Your task to perform on an android device: Search for the new Nintendo switch on Best Buy Image 0: 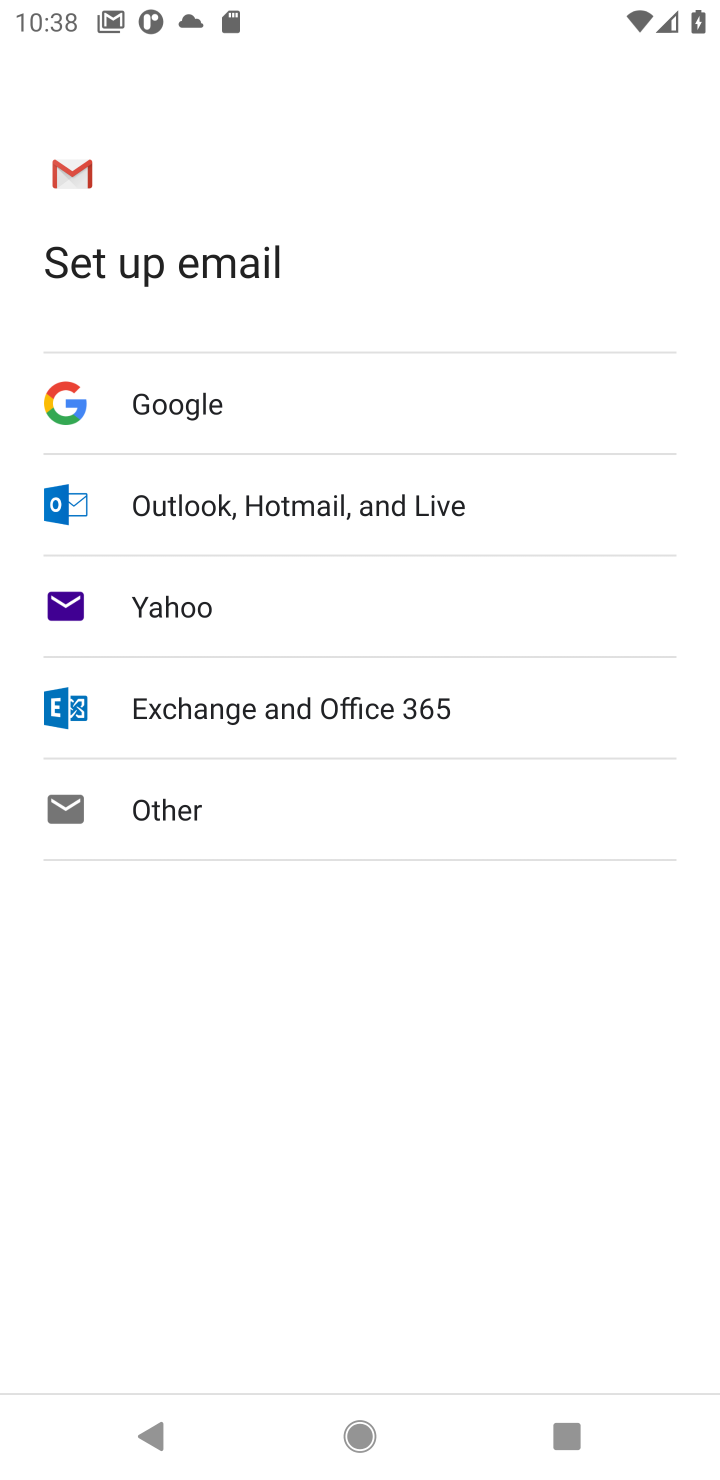
Step 0: press home button
Your task to perform on an android device: Search for the new Nintendo switch on Best Buy Image 1: 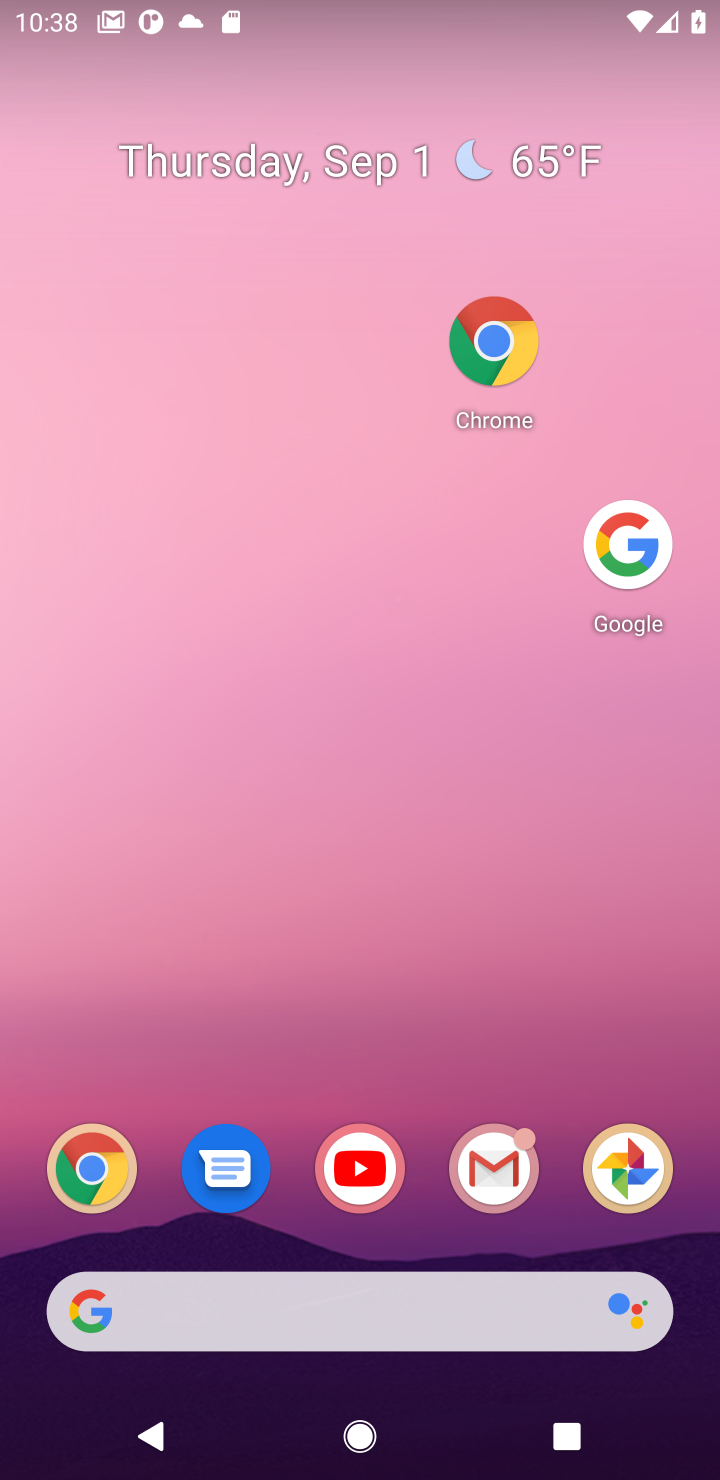
Step 1: click (628, 535)
Your task to perform on an android device: Search for the new Nintendo switch on Best Buy Image 2: 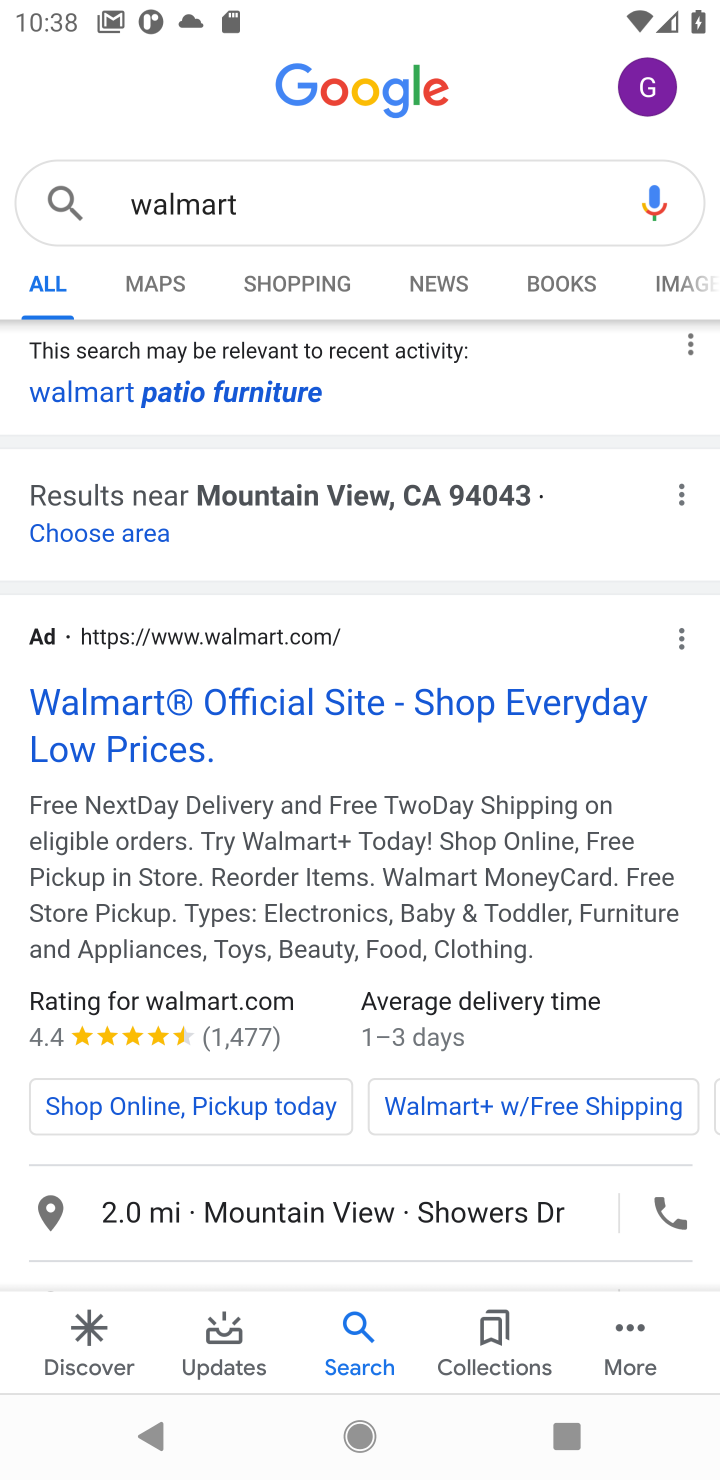
Step 2: click (434, 194)
Your task to perform on an android device: Search for the new Nintendo switch on Best Buy Image 3: 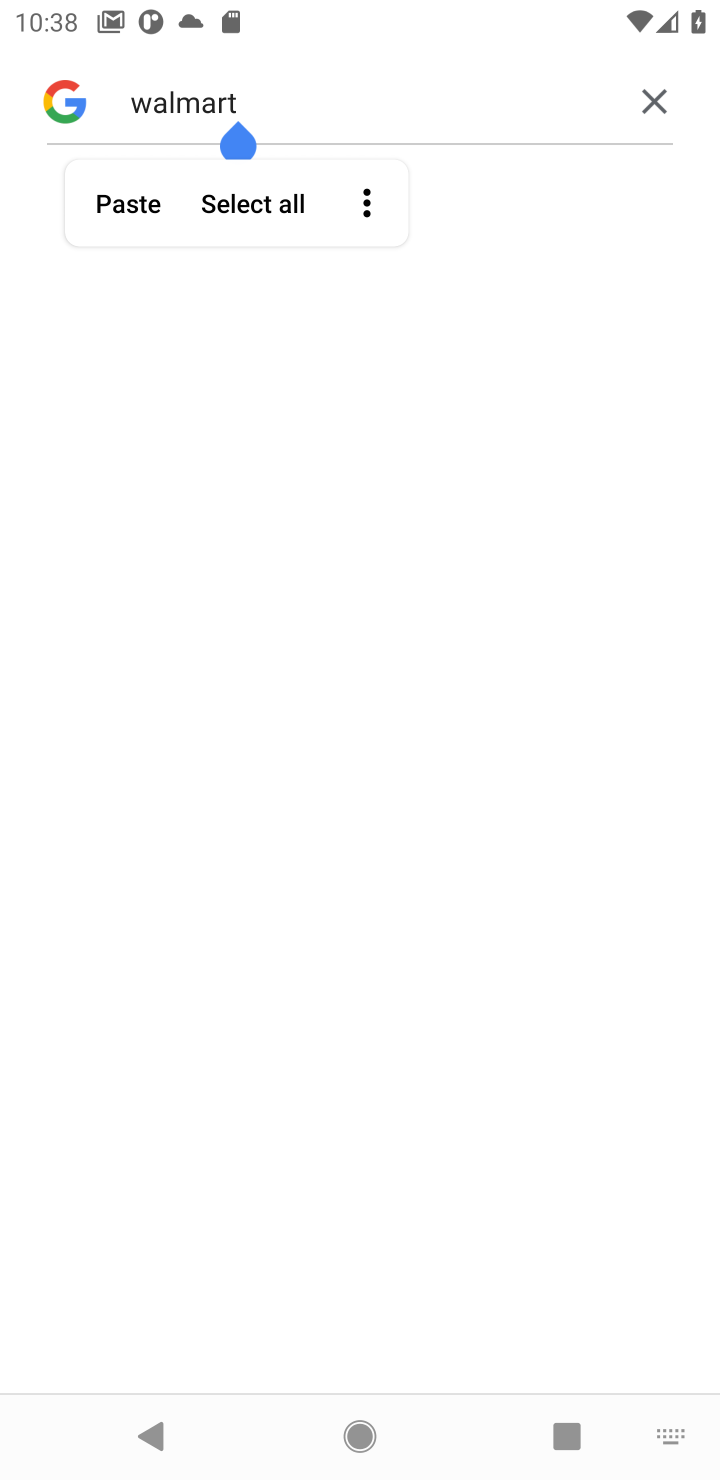
Step 3: click (645, 108)
Your task to perform on an android device: Search for the new Nintendo switch on Best Buy Image 4: 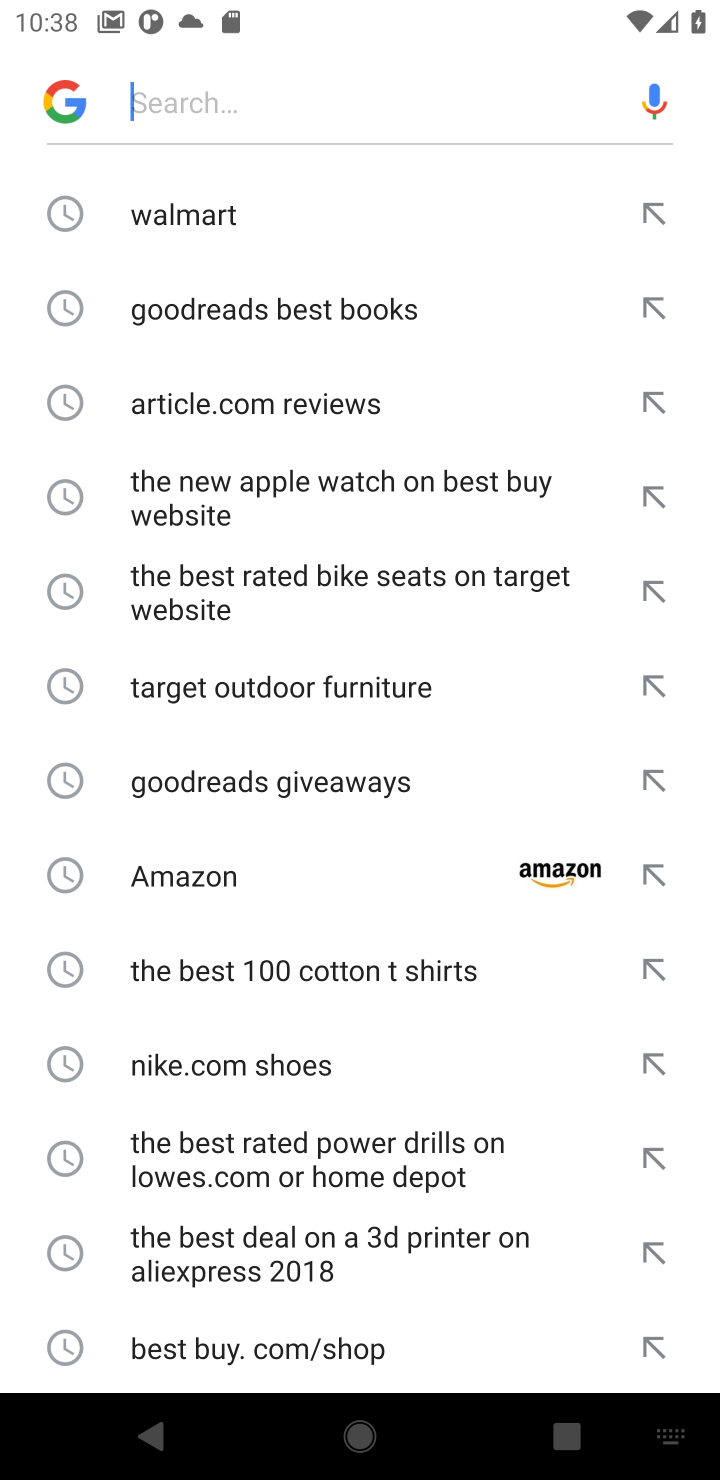
Step 4: click (314, 88)
Your task to perform on an android device: Search for the new Nintendo switch on Best Buy Image 5: 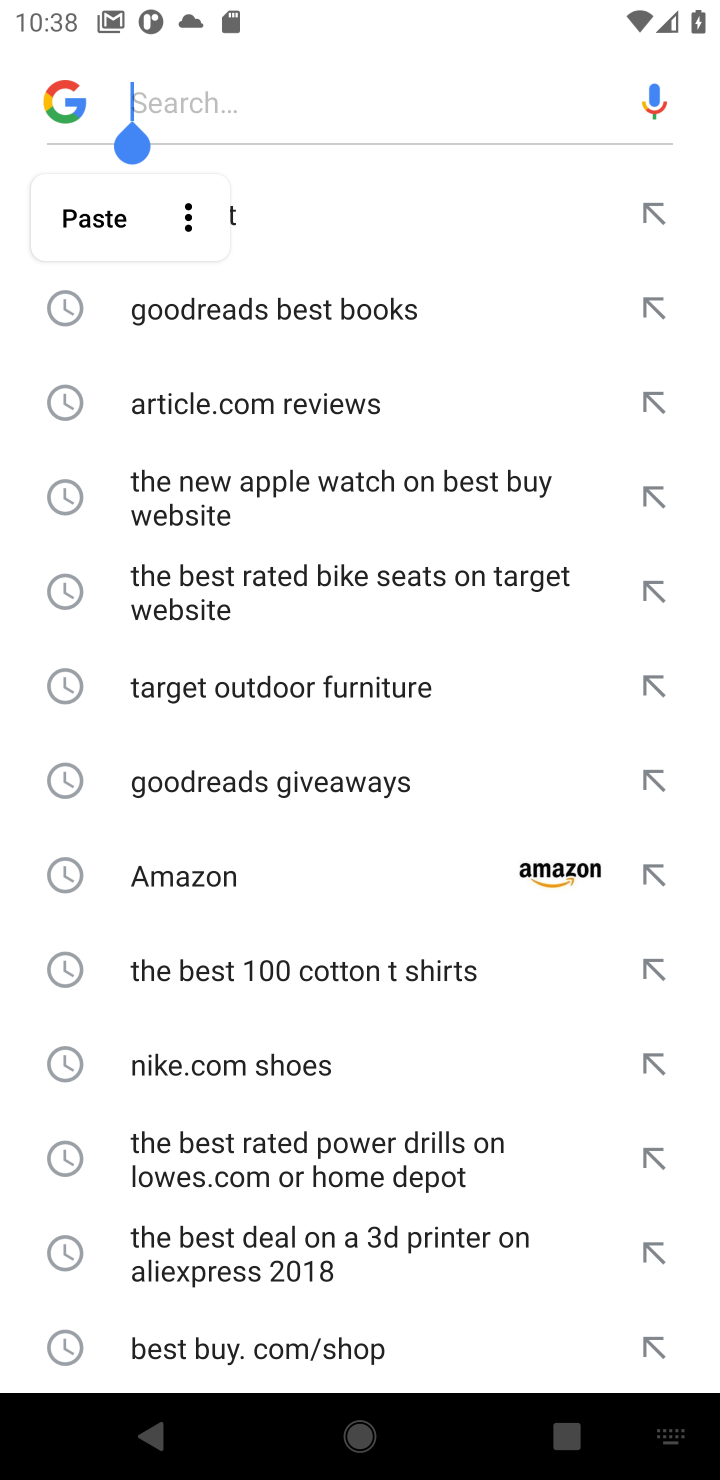
Step 5: type " Best Buy "
Your task to perform on an android device: Search for the new Nintendo switch on Best Buy Image 6: 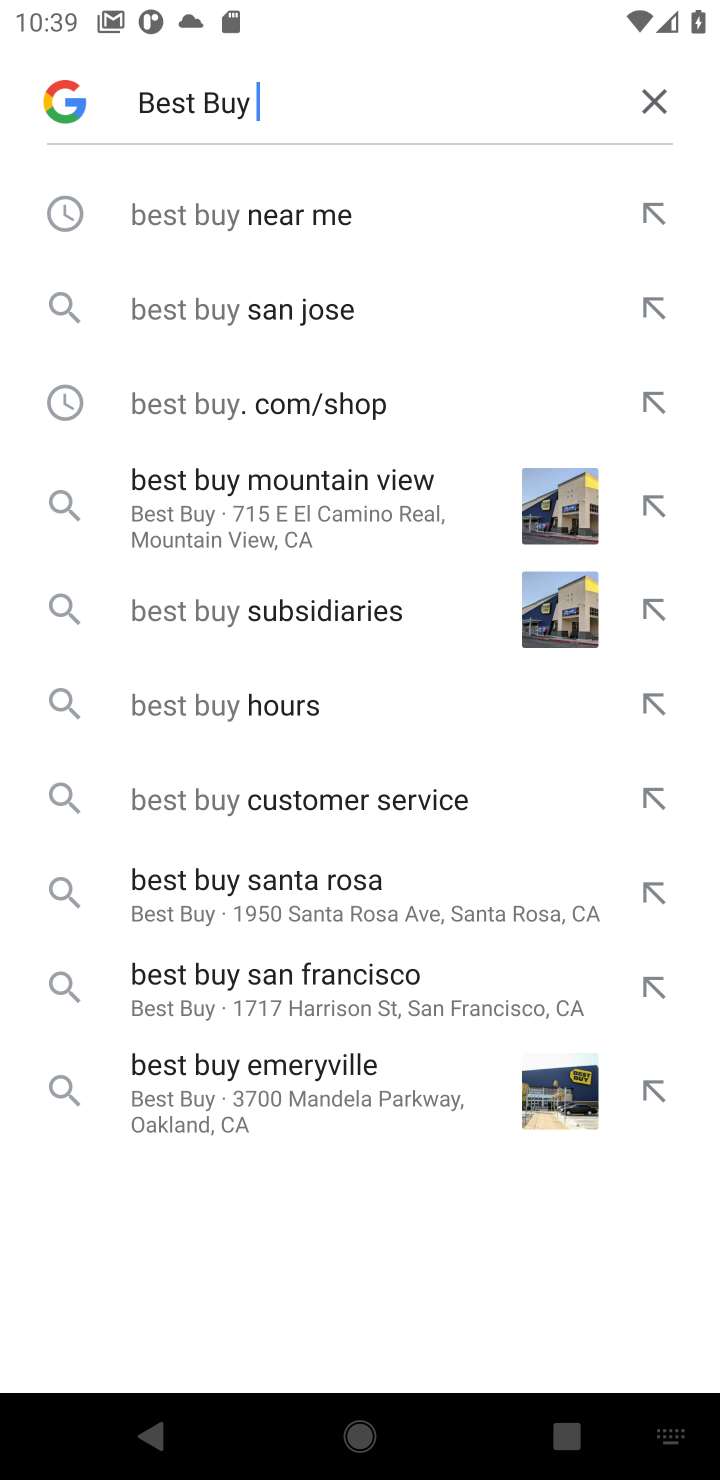
Step 6: click (244, 229)
Your task to perform on an android device: Search for the new Nintendo switch on Best Buy Image 7: 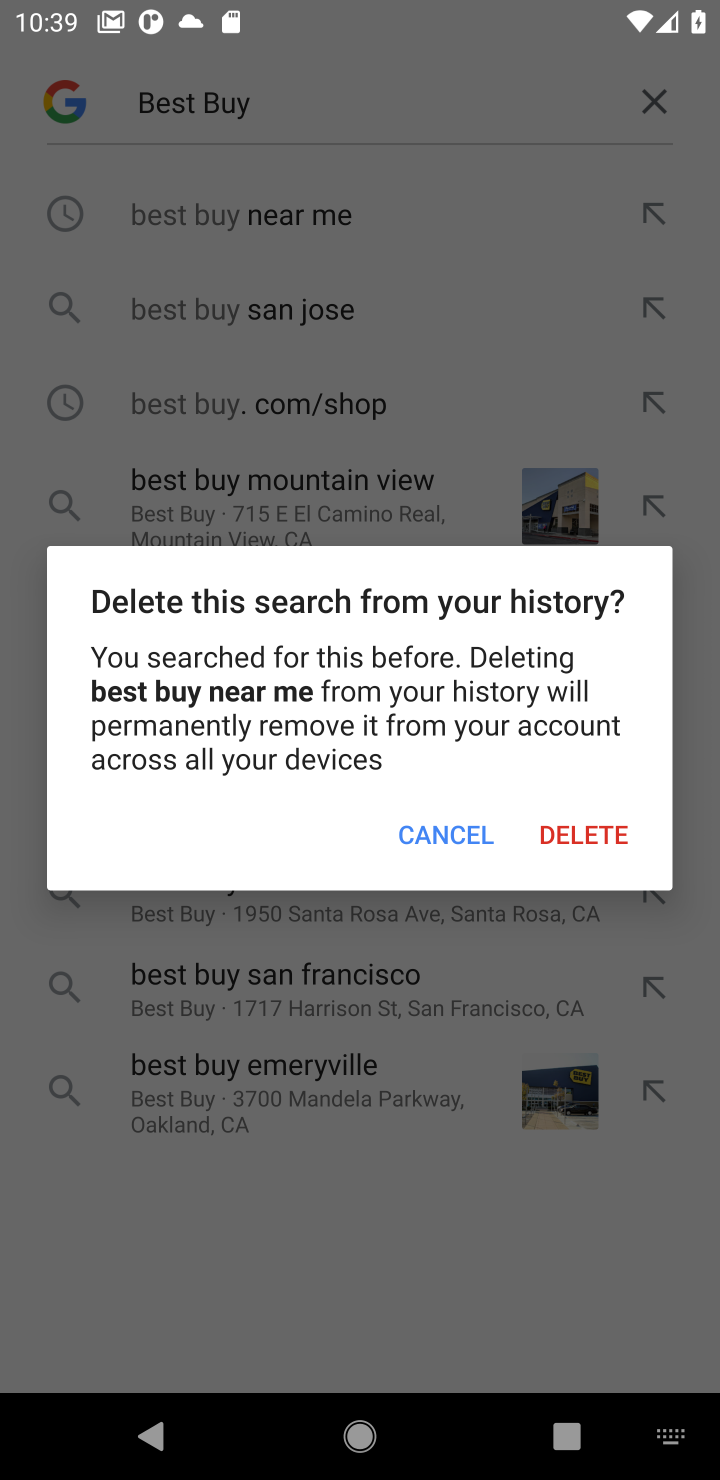
Step 7: click (479, 833)
Your task to perform on an android device: Search for the new Nintendo switch on Best Buy Image 8: 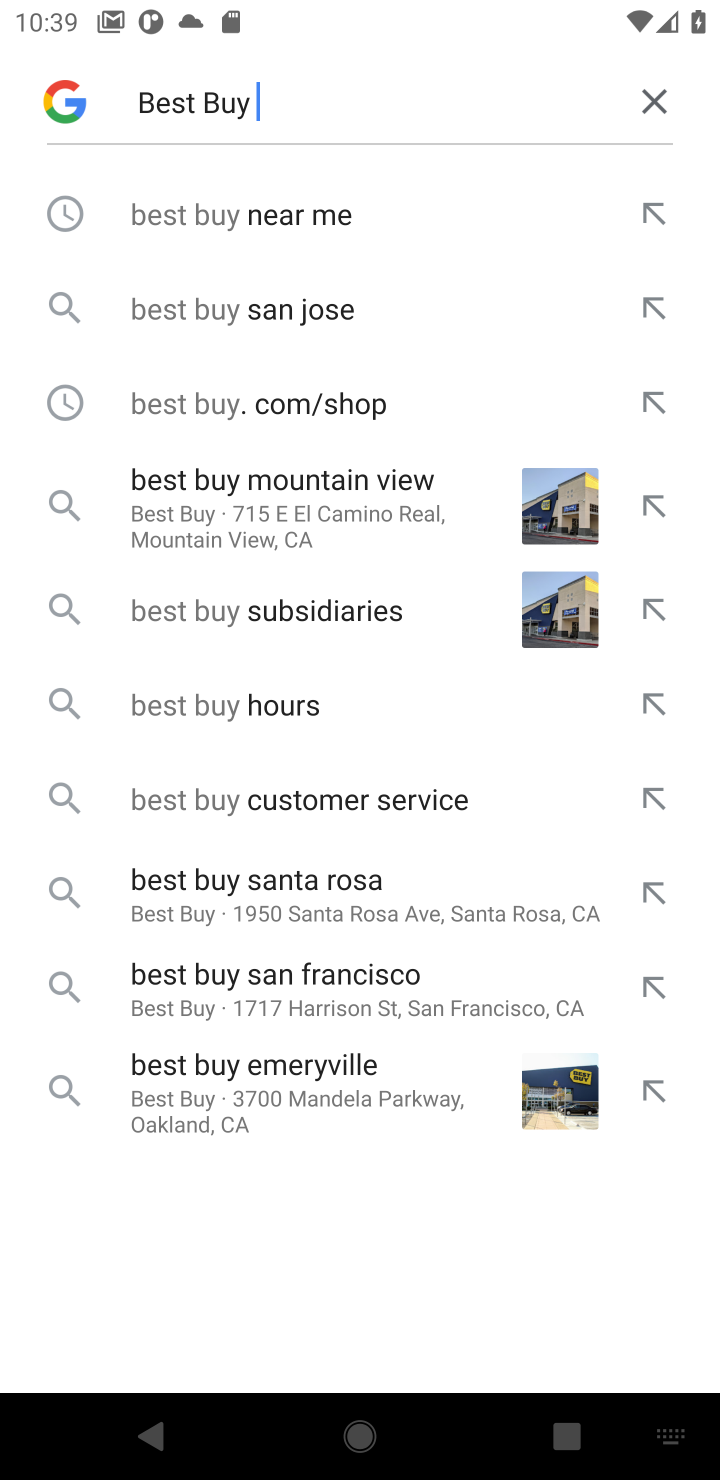
Step 8: click (640, 85)
Your task to perform on an android device: Search for the new Nintendo switch on Best Buy Image 9: 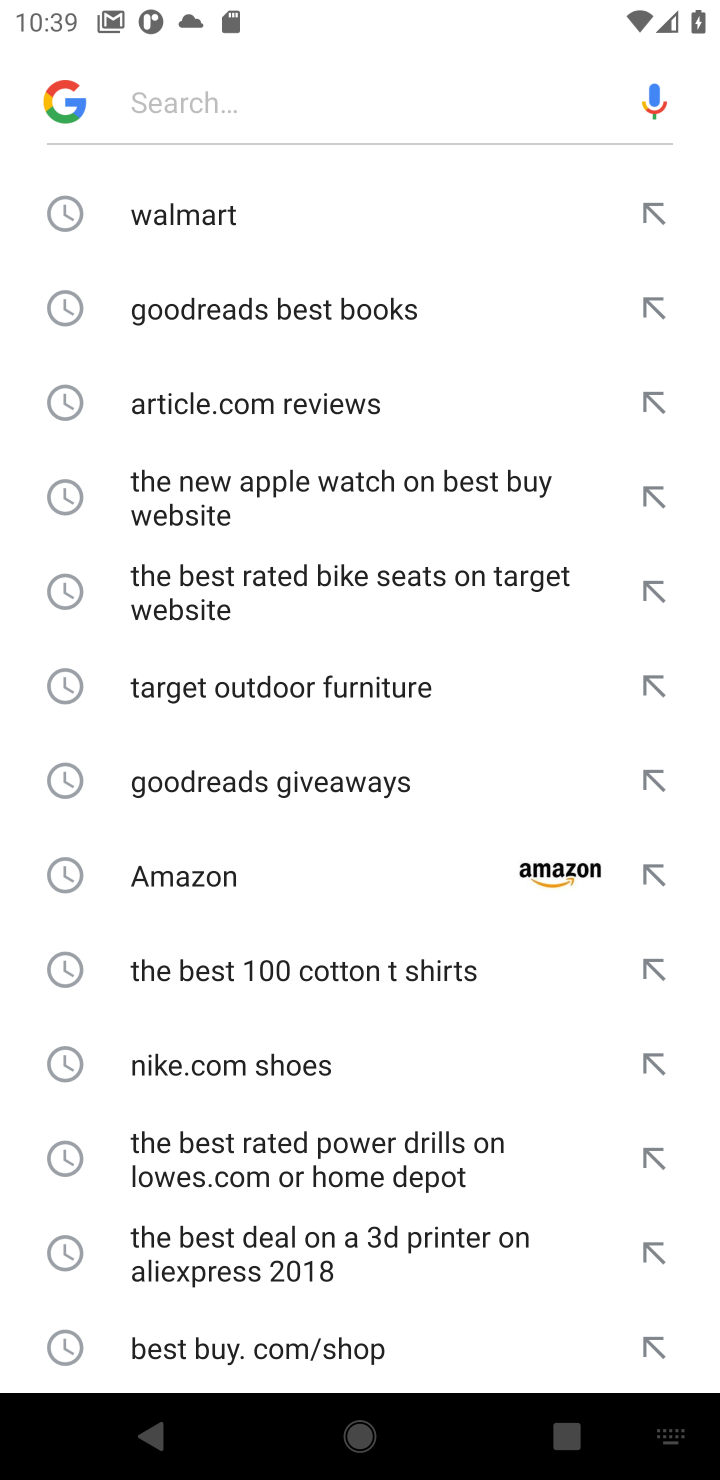
Step 9: click (375, 100)
Your task to perform on an android device: Search for the new Nintendo switch on Best Buy Image 10: 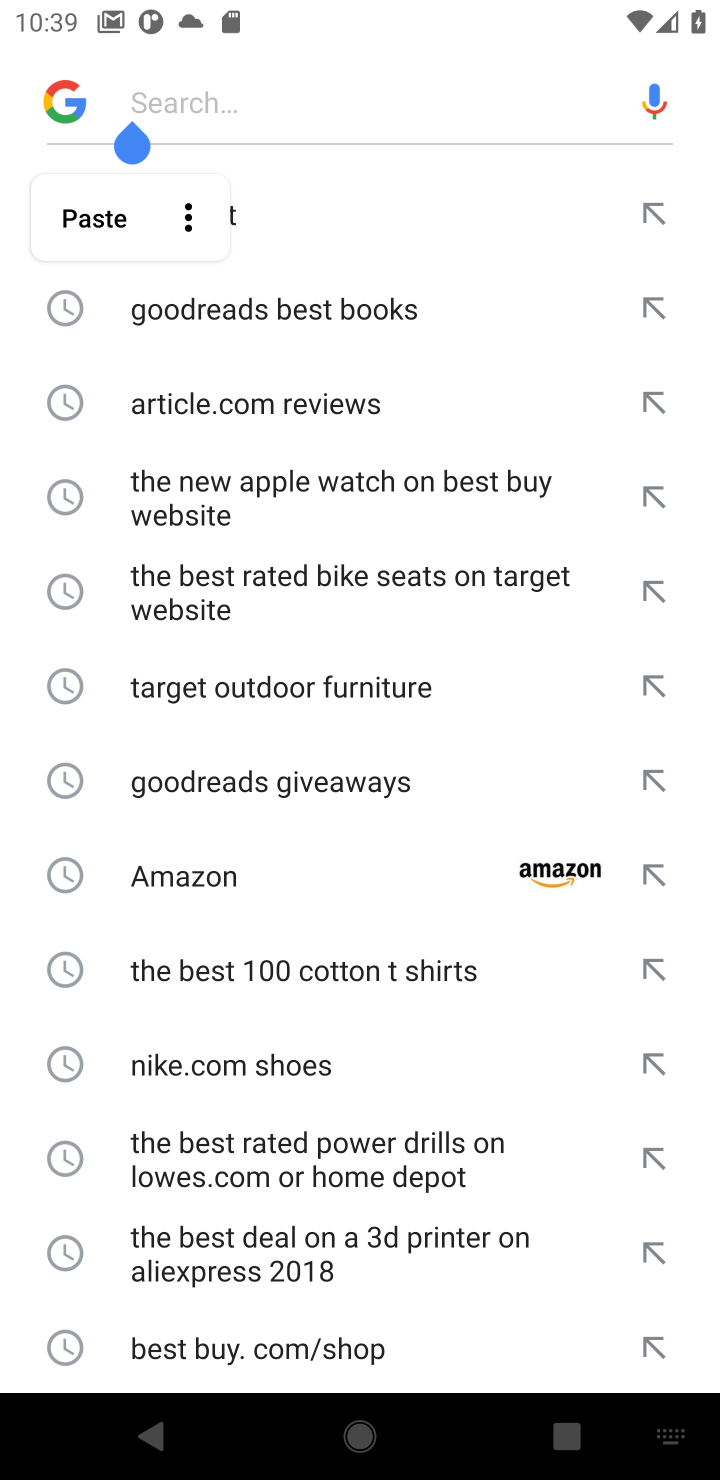
Step 10: type "the new Nintendo switch on Best Buy "
Your task to perform on an android device: Search for the new Nintendo switch on Best Buy Image 11: 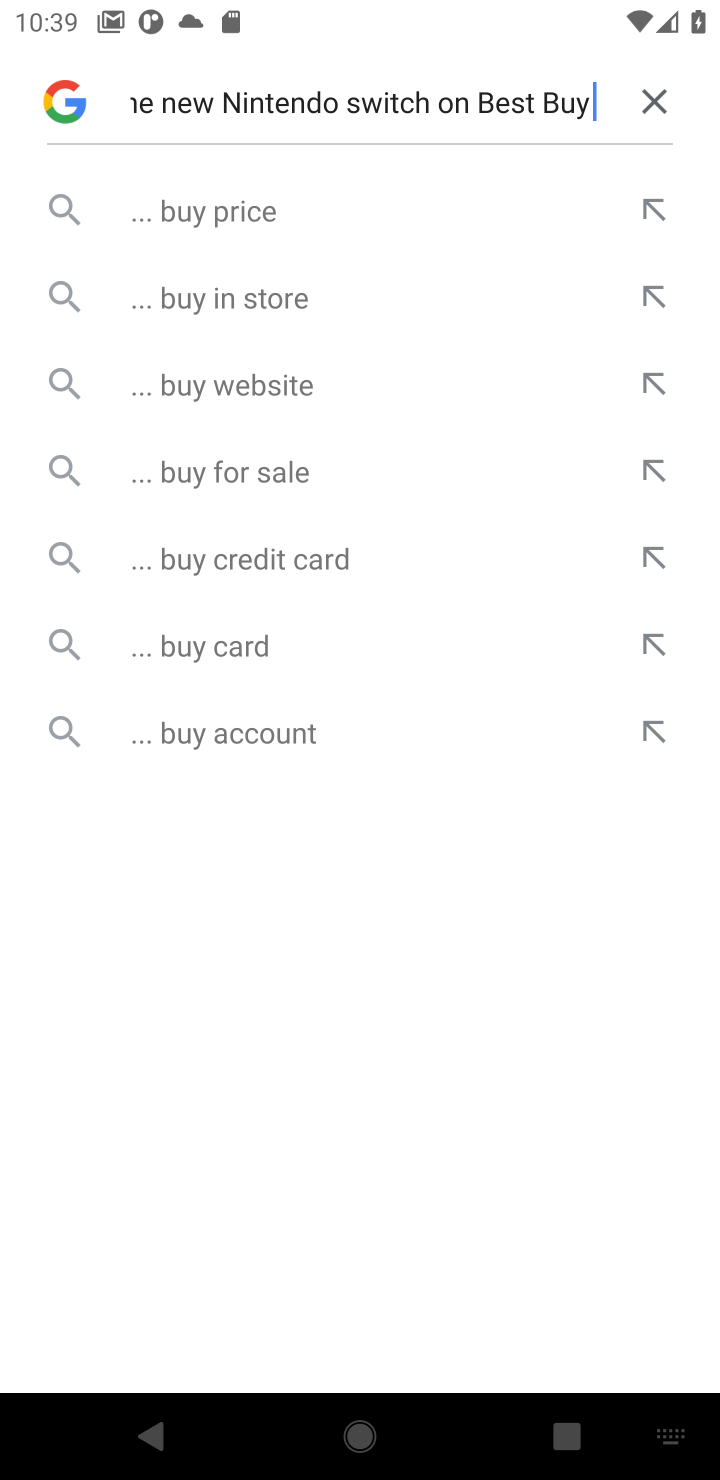
Step 11: click (231, 385)
Your task to perform on an android device: Search for the new Nintendo switch on Best Buy Image 12: 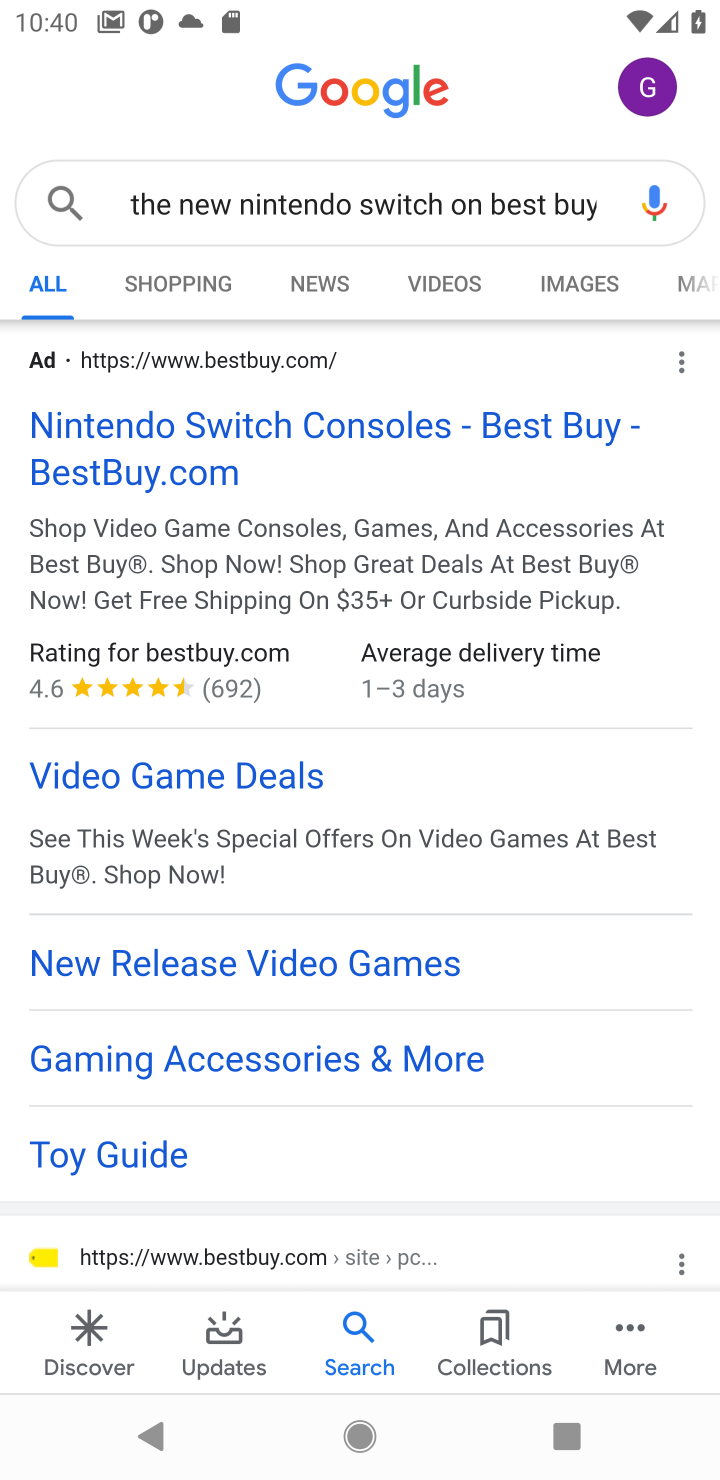
Step 12: click (300, 423)
Your task to perform on an android device: Search for the new Nintendo switch on Best Buy Image 13: 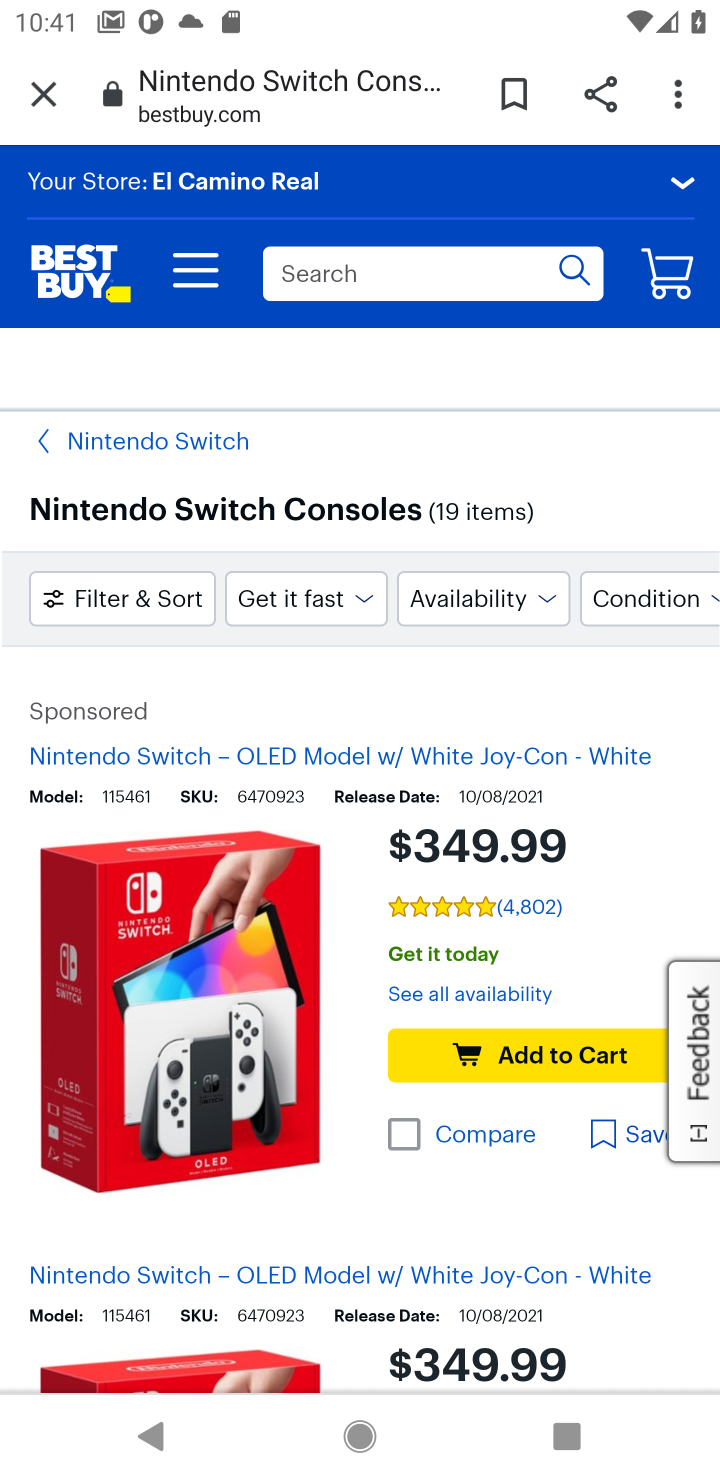
Step 13: task complete